Your task to perform on an android device: turn on showing notifications on the lock screen Image 0: 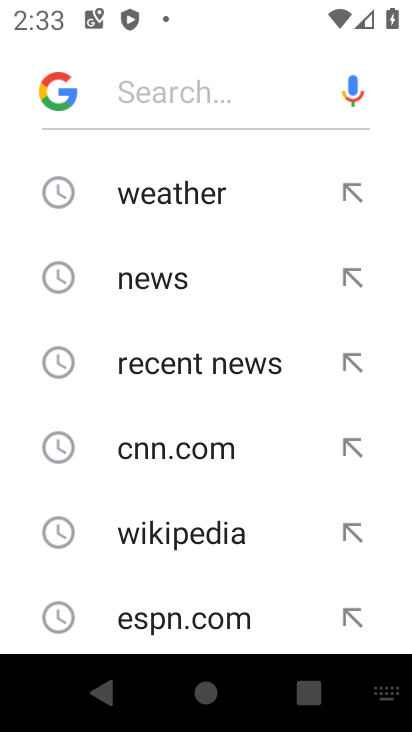
Step 0: press home button
Your task to perform on an android device: turn on showing notifications on the lock screen Image 1: 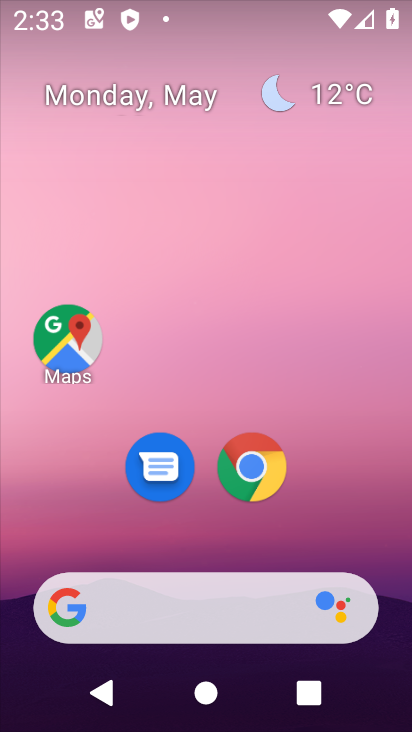
Step 1: drag from (346, 537) to (282, 90)
Your task to perform on an android device: turn on showing notifications on the lock screen Image 2: 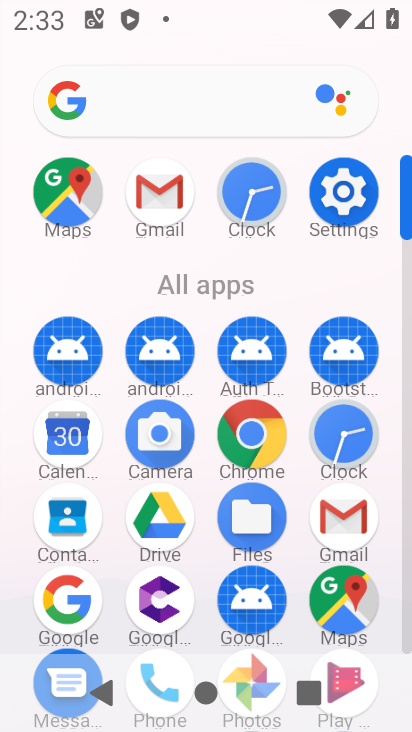
Step 2: click (347, 216)
Your task to perform on an android device: turn on showing notifications on the lock screen Image 3: 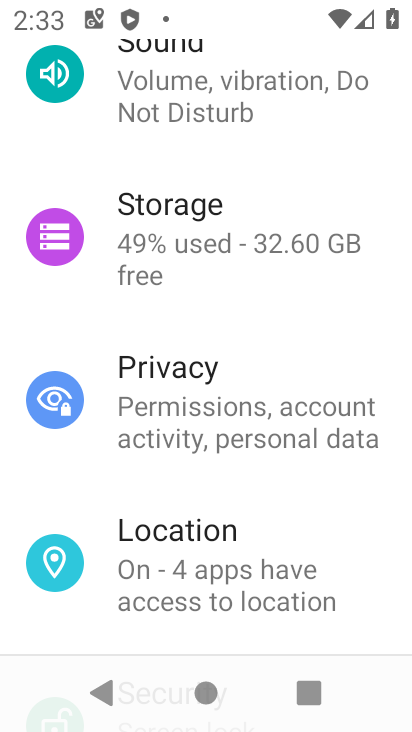
Step 3: drag from (261, 156) to (261, 649)
Your task to perform on an android device: turn on showing notifications on the lock screen Image 4: 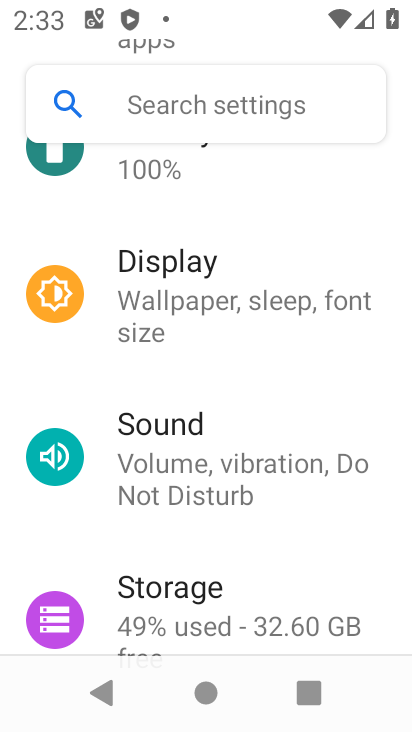
Step 4: drag from (218, 238) to (262, 730)
Your task to perform on an android device: turn on showing notifications on the lock screen Image 5: 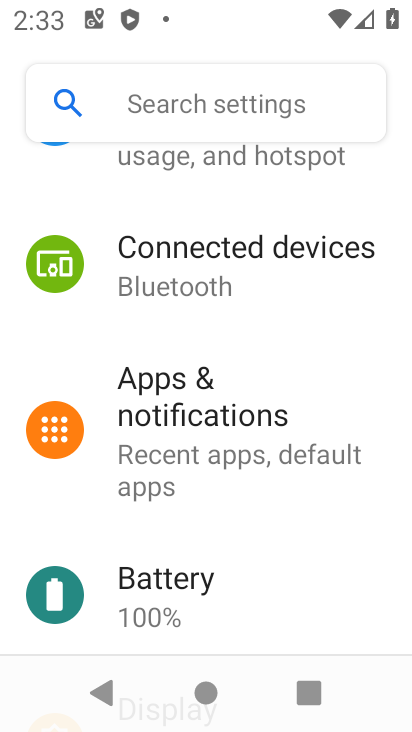
Step 5: click (245, 480)
Your task to perform on an android device: turn on showing notifications on the lock screen Image 6: 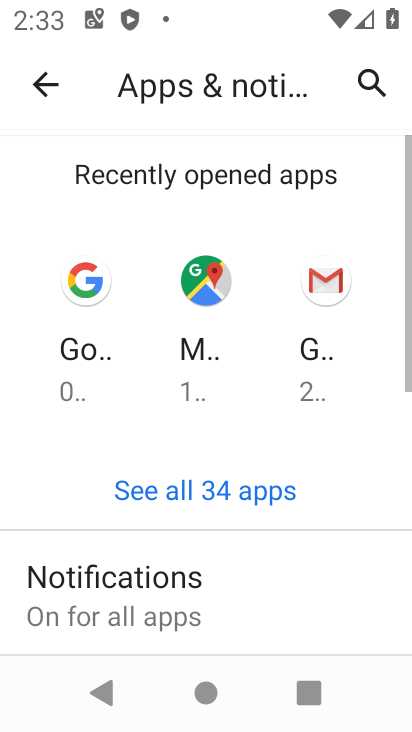
Step 6: drag from (287, 589) to (266, 221)
Your task to perform on an android device: turn on showing notifications on the lock screen Image 7: 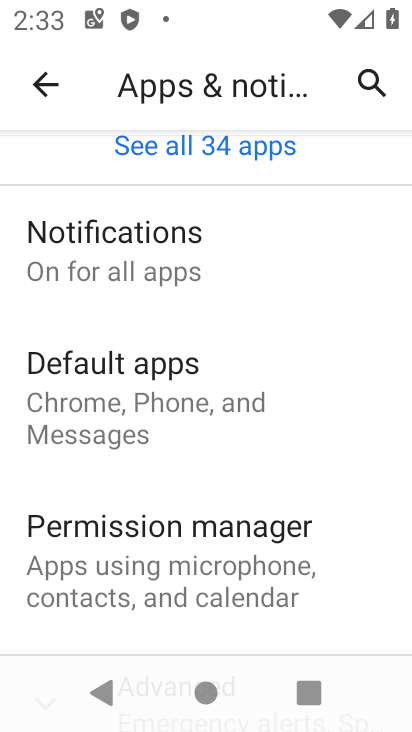
Step 7: click (263, 263)
Your task to perform on an android device: turn on showing notifications on the lock screen Image 8: 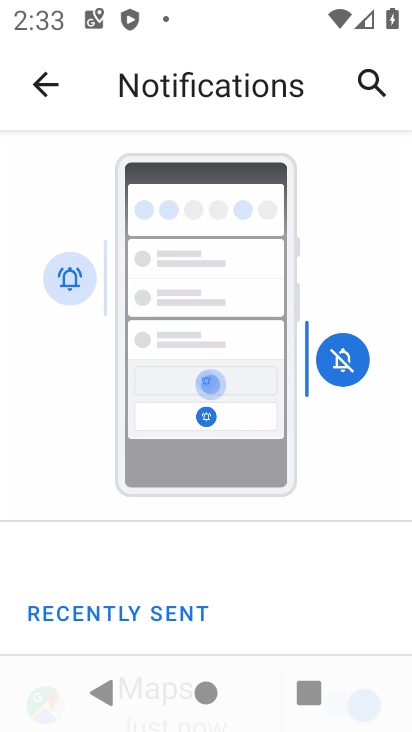
Step 8: drag from (274, 644) to (198, 71)
Your task to perform on an android device: turn on showing notifications on the lock screen Image 9: 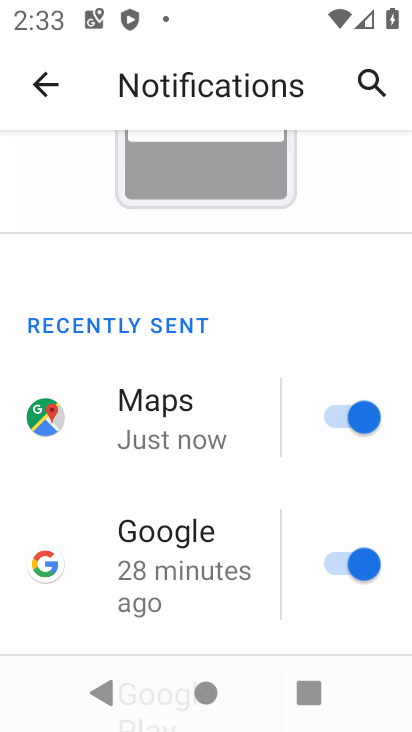
Step 9: drag from (276, 583) to (219, 2)
Your task to perform on an android device: turn on showing notifications on the lock screen Image 10: 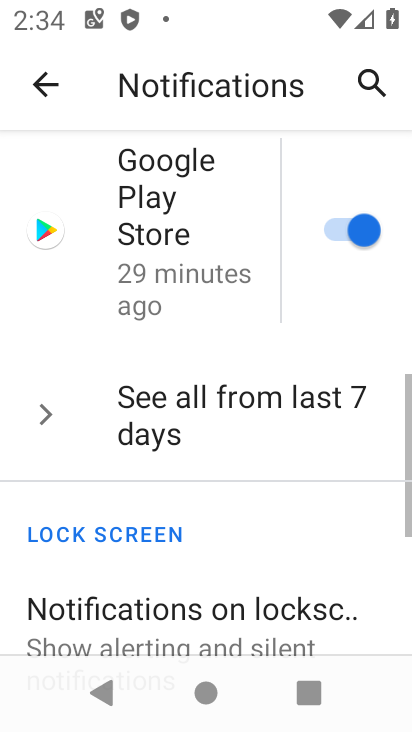
Step 10: drag from (214, 454) to (212, 83)
Your task to perform on an android device: turn on showing notifications on the lock screen Image 11: 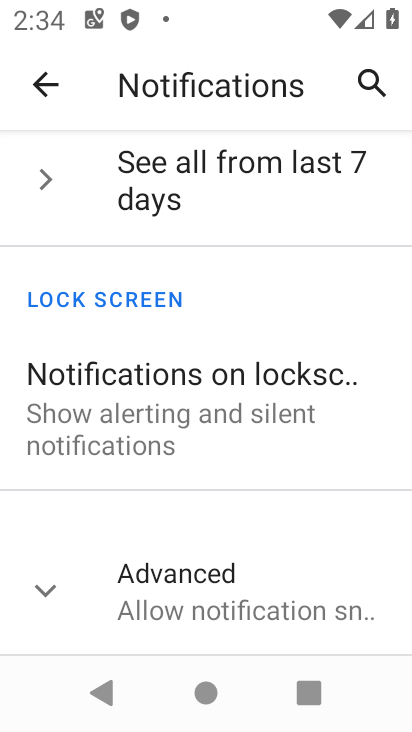
Step 11: click (247, 432)
Your task to perform on an android device: turn on showing notifications on the lock screen Image 12: 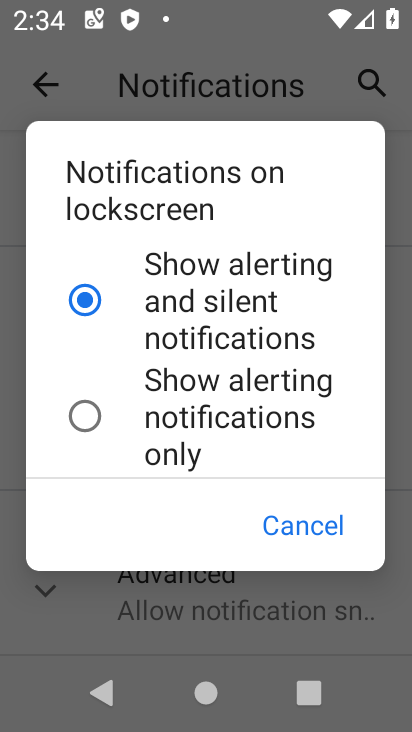
Step 12: task complete